Your task to perform on an android device: toggle javascript in the chrome app Image 0: 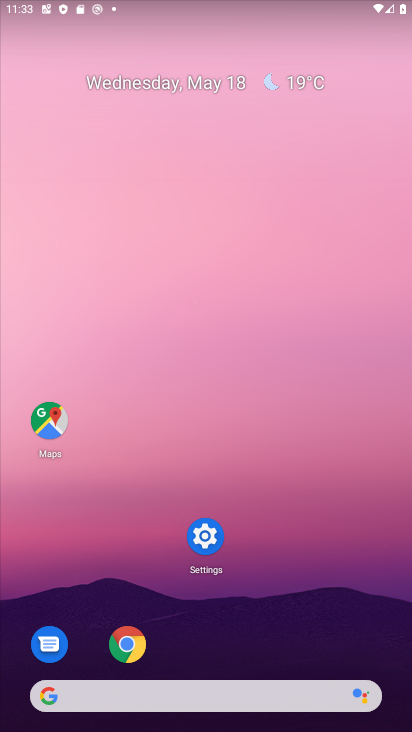
Step 0: click (127, 648)
Your task to perform on an android device: toggle javascript in the chrome app Image 1: 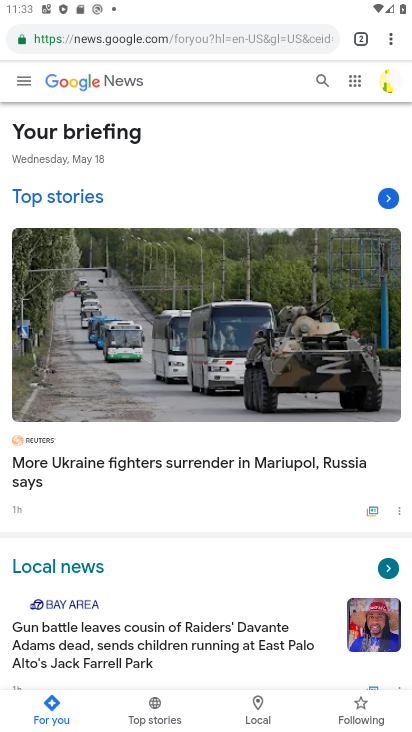
Step 1: click (389, 38)
Your task to perform on an android device: toggle javascript in the chrome app Image 2: 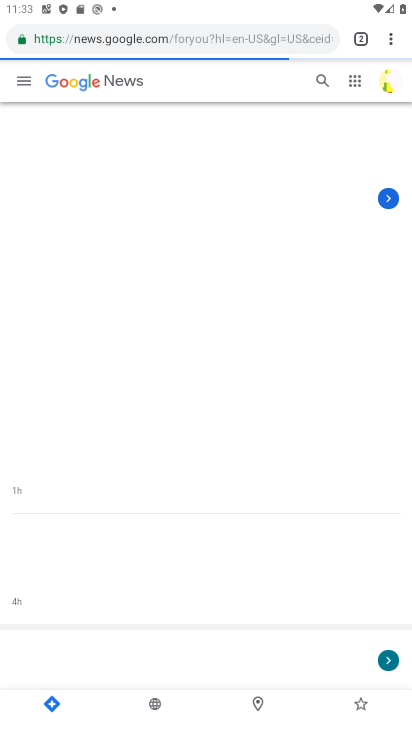
Step 2: drag from (386, 36) to (261, 472)
Your task to perform on an android device: toggle javascript in the chrome app Image 3: 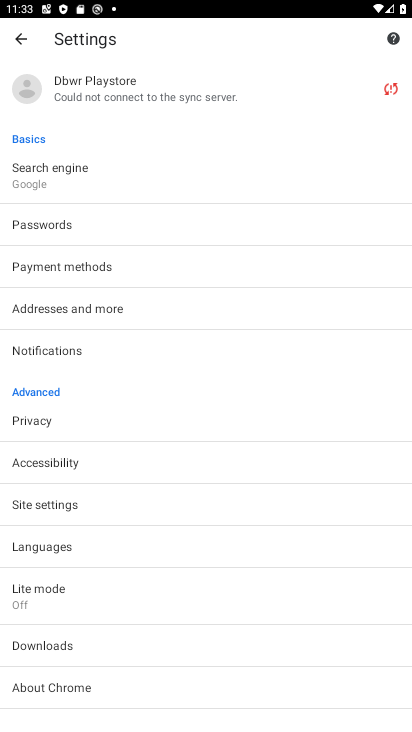
Step 3: drag from (105, 636) to (110, 453)
Your task to perform on an android device: toggle javascript in the chrome app Image 4: 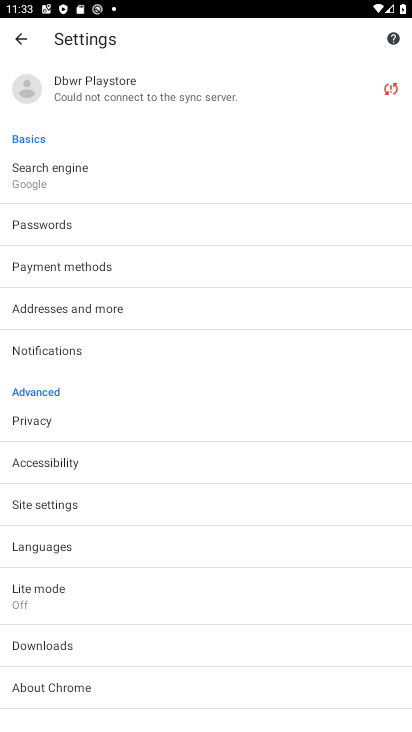
Step 4: click (57, 507)
Your task to perform on an android device: toggle javascript in the chrome app Image 5: 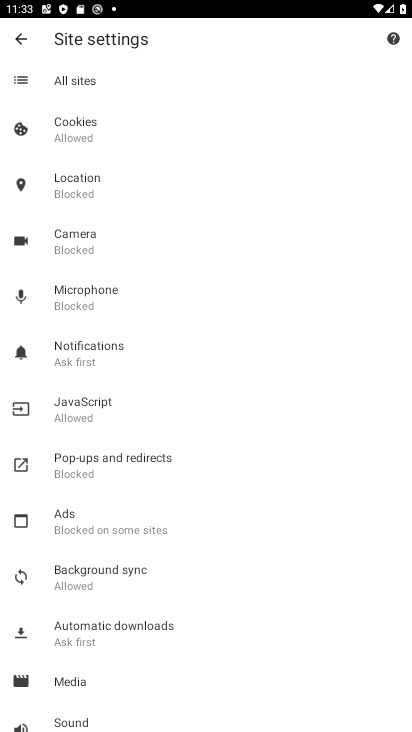
Step 5: click (82, 423)
Your task to perform on an android device: toggle javascript in the chrome app Image 6: 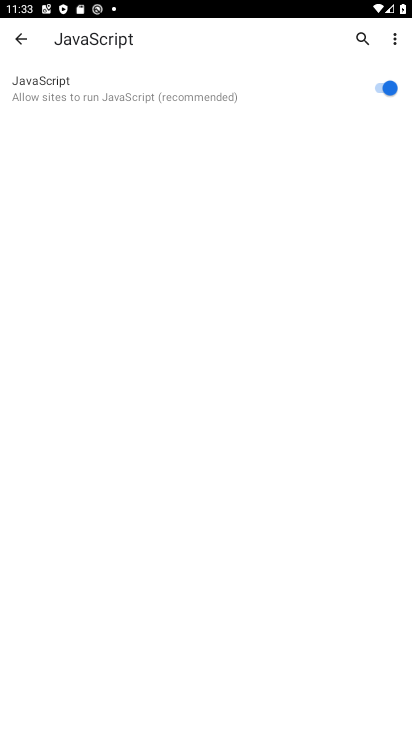
Step 6: click (386, 83)
Your task to perform on an android device: toggle javascript in the chrome app Image 7: 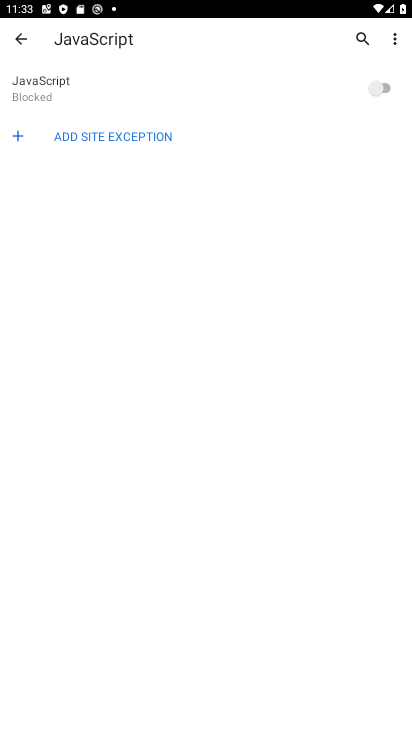
Step 7: task complete